Your task to perform on an android device: What's on my calendar tomorrow? Image 0: 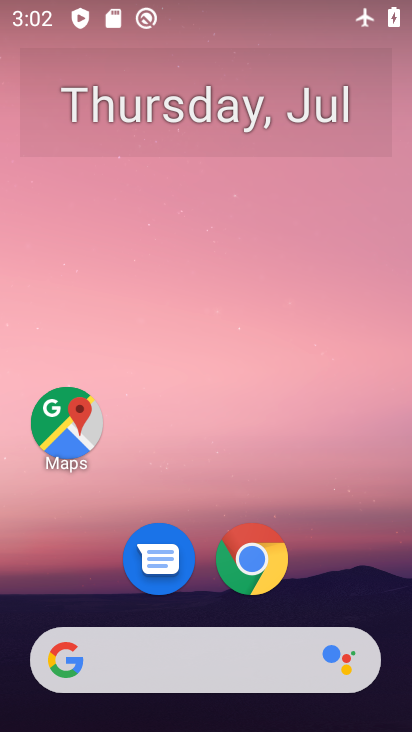
Step 0: drag from (284, 503) to (324, 20)
Your task to perform on an android device: What's on my calendar tomorrow? Image 1: 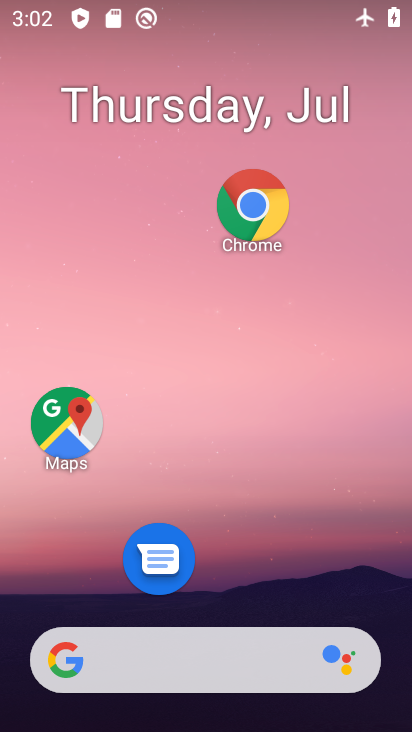
Step 1: drag from (300, 566) to (320, 314)
Your task to perform on an android device: What's on my calendar tomorrow? Image 2: 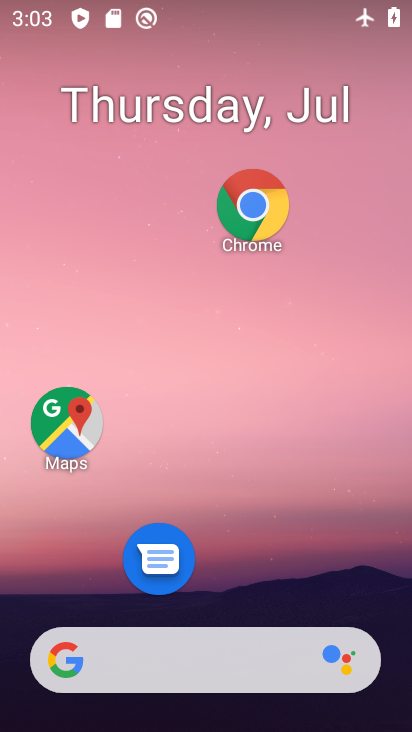
Step 2: drag from (334, 622) to (340, 346)
Your task to perform on an android device: What's on my calendar tomorrow? Image 3: 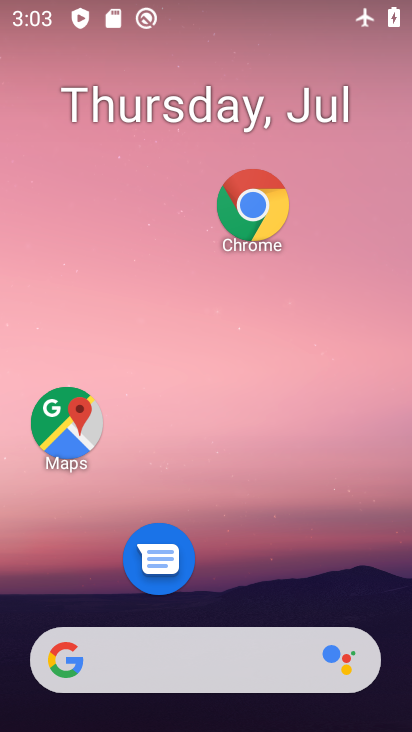
Step 3: drag from (322, 554) to (329, 105)
Your task to perform on an android device: What's on my calendar tomorrow? Image 4: 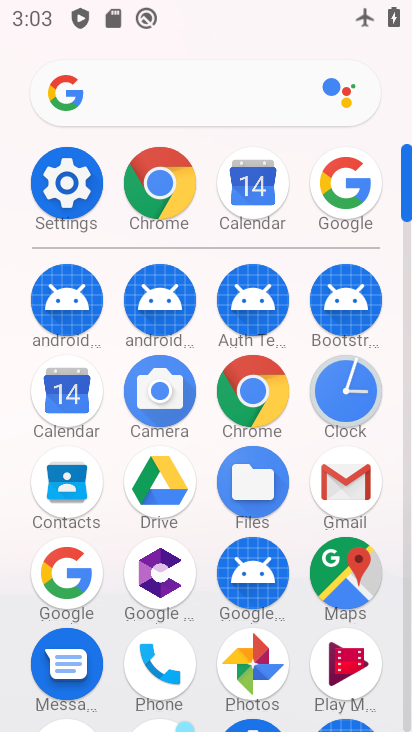
Step 4: click (85, 393)
Your task to perform on an android device: What's on my calendar tomorrow? Image 5: 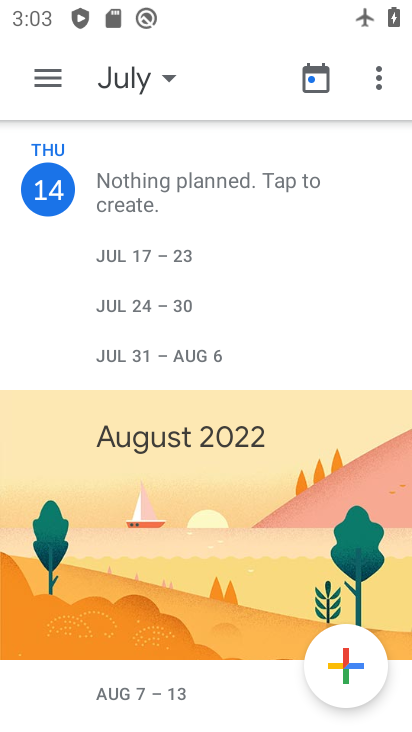
Step 5: click (158, 85)
Your task to perform on an android device: What's on my calendar tomorrow? Image 6: 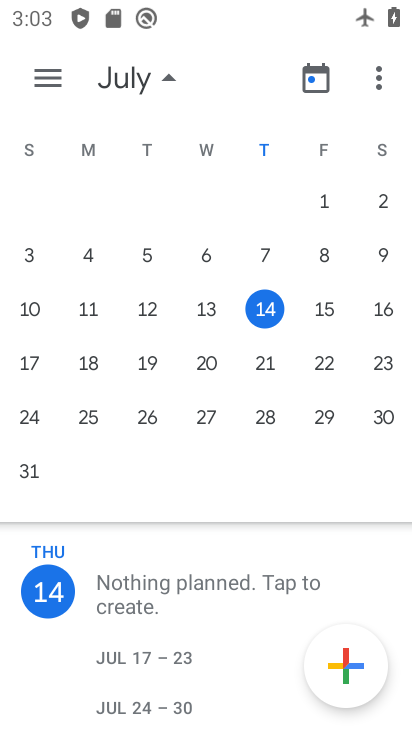
Step 6: click (324, 302)
Your task to perform on an android device: What's on my calendar tomorrow? Image 7: 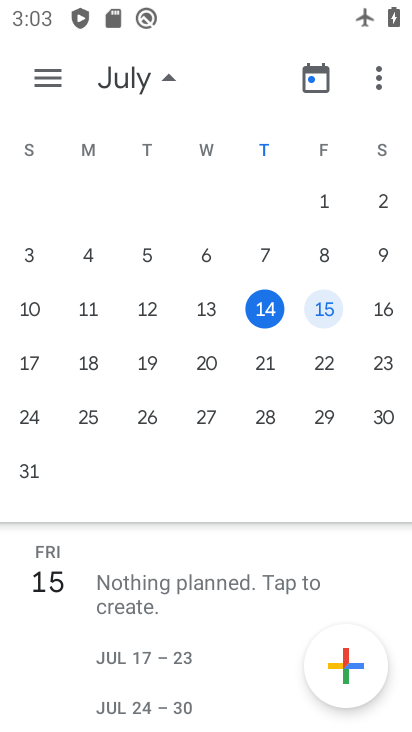
Step 7: task complete